Your task to perform on an android device: Search for a new grill on Home Depot Image 0: 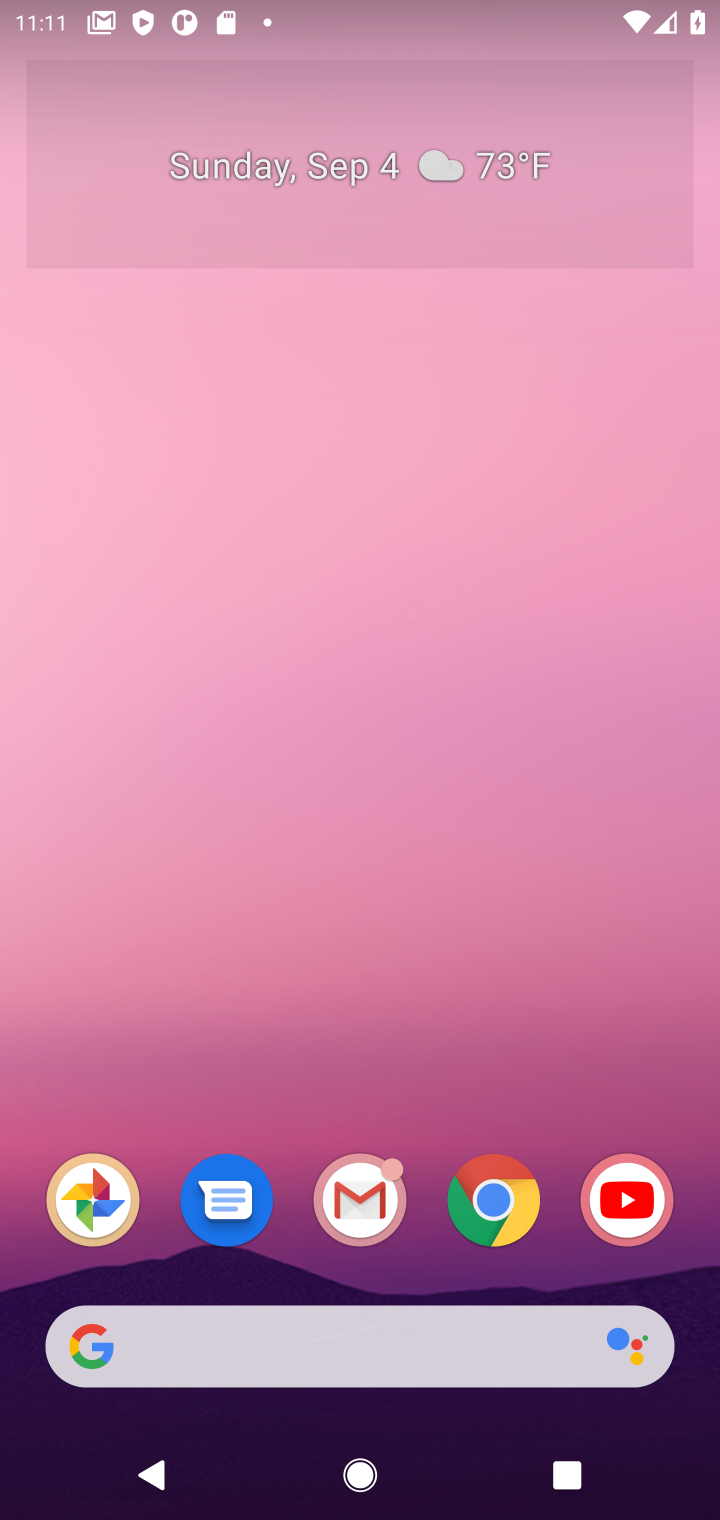
Step 0: click (515, 1214)
Your task to perform on an android device: Search for a new grill on Home Depot Image 1: 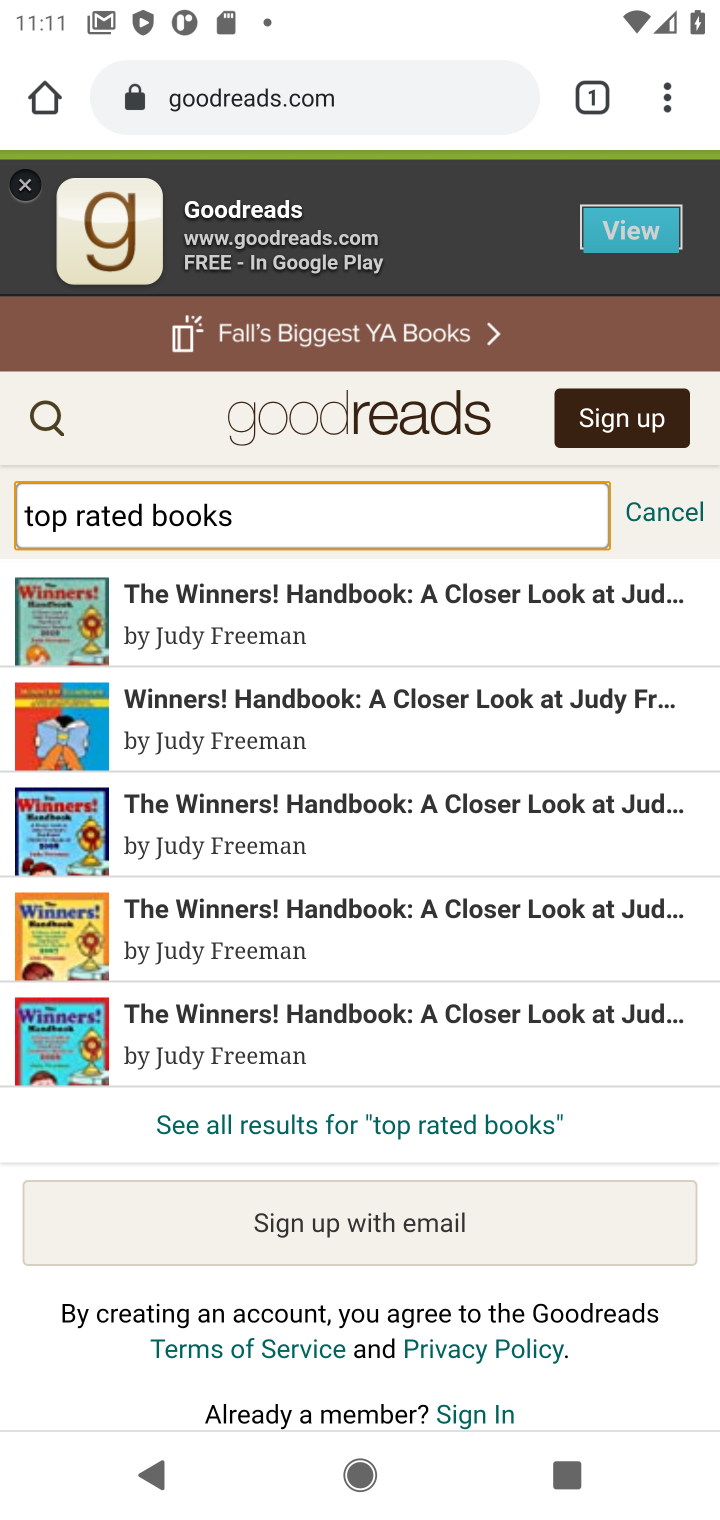
Step 1: click (394, 67)
Your task to perform on an android device: Search for a new grill on Home Depot Image 2: 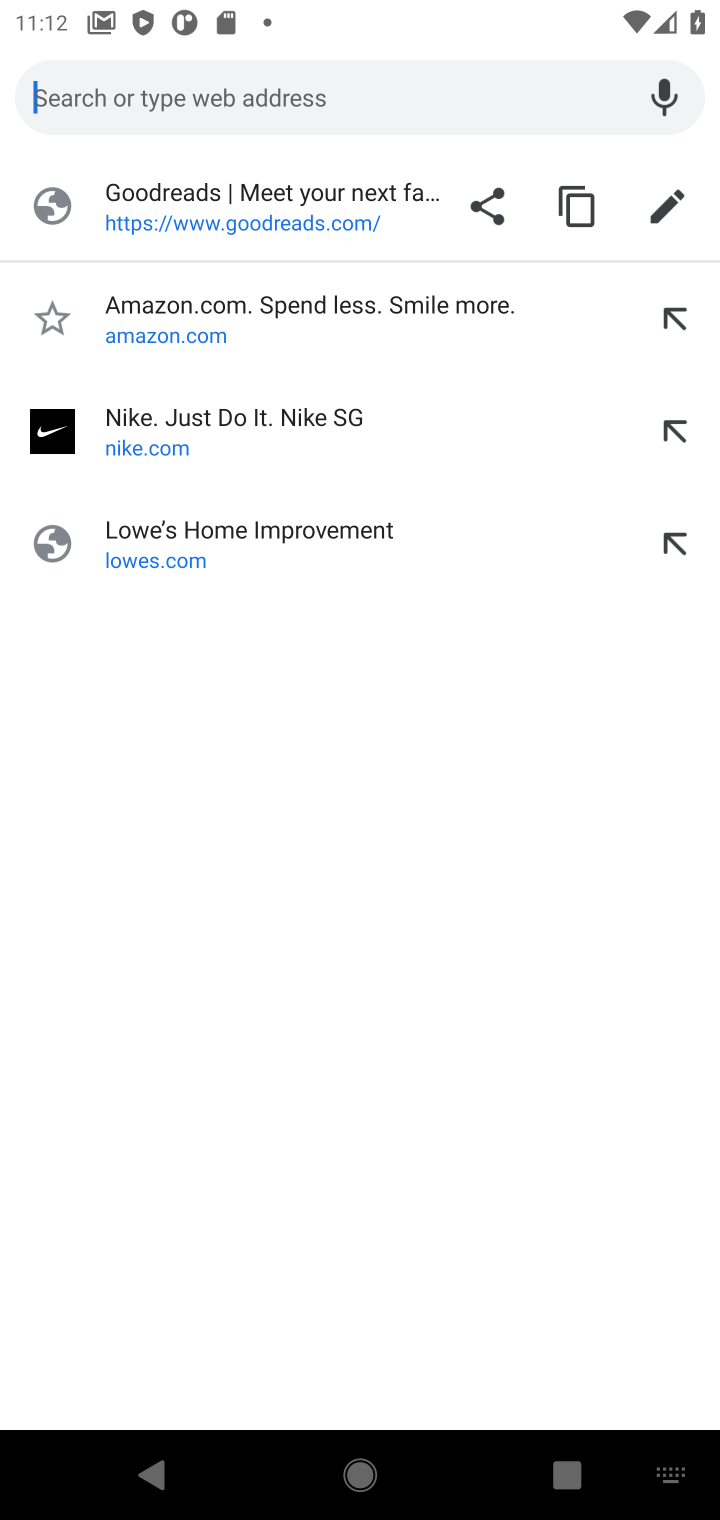
Step 2: type "home depot"
Your task to perform on an android device: Search for a new grill on Home Depot Image 3: 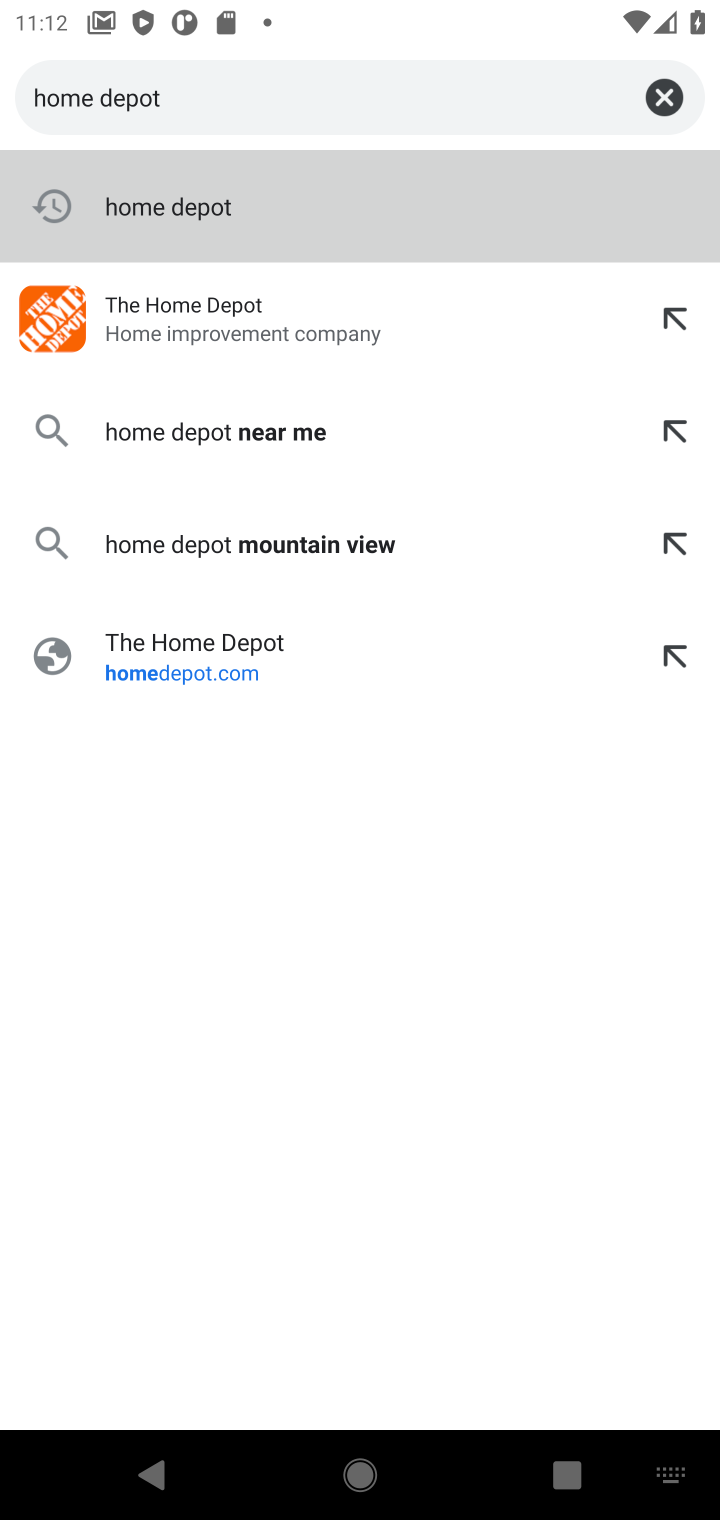
Step 3: click (59, 325)
Your task to perform on an android device: Search for a new grill on Home Depot Image 4: 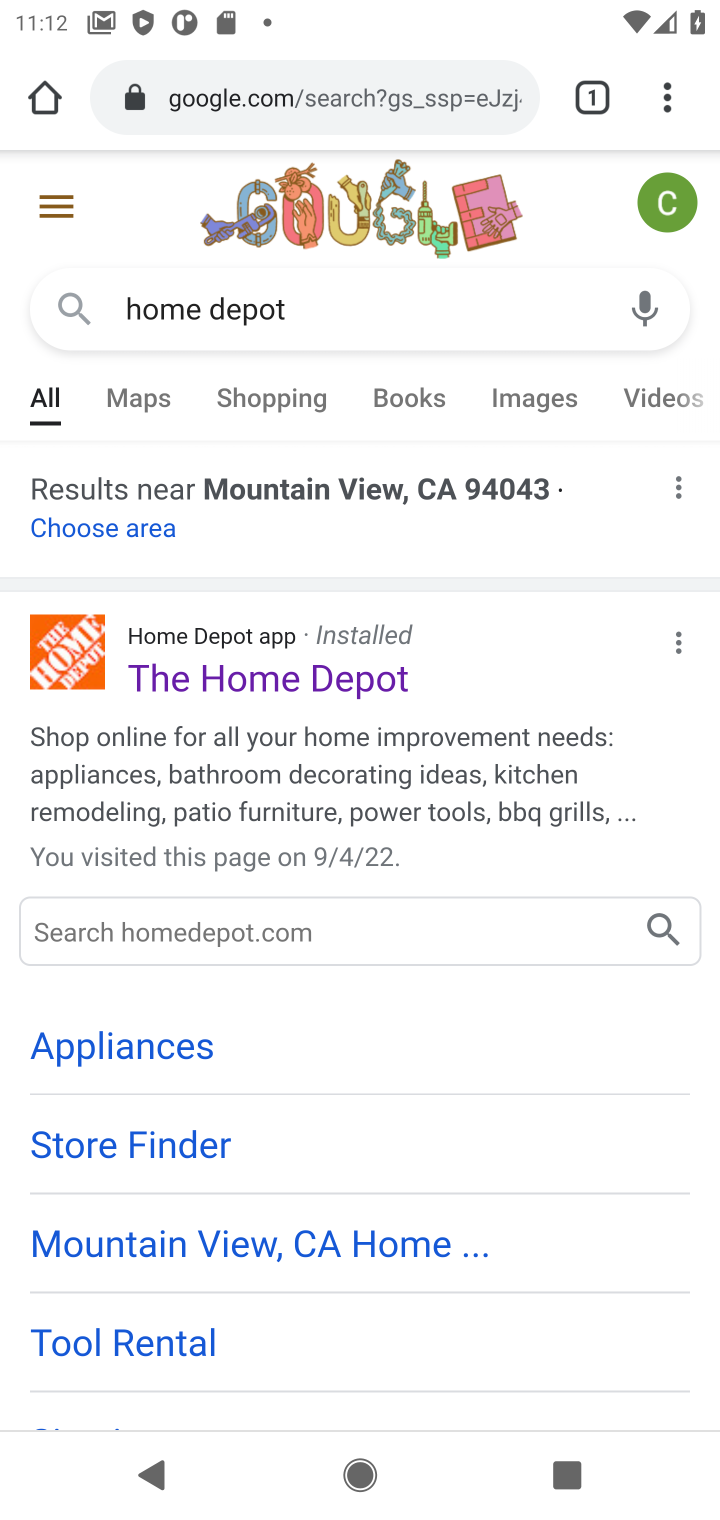
Step 4: click (329, 677)
Your task to perform on an android device: Search for a new grill on Home Depot Image 5: 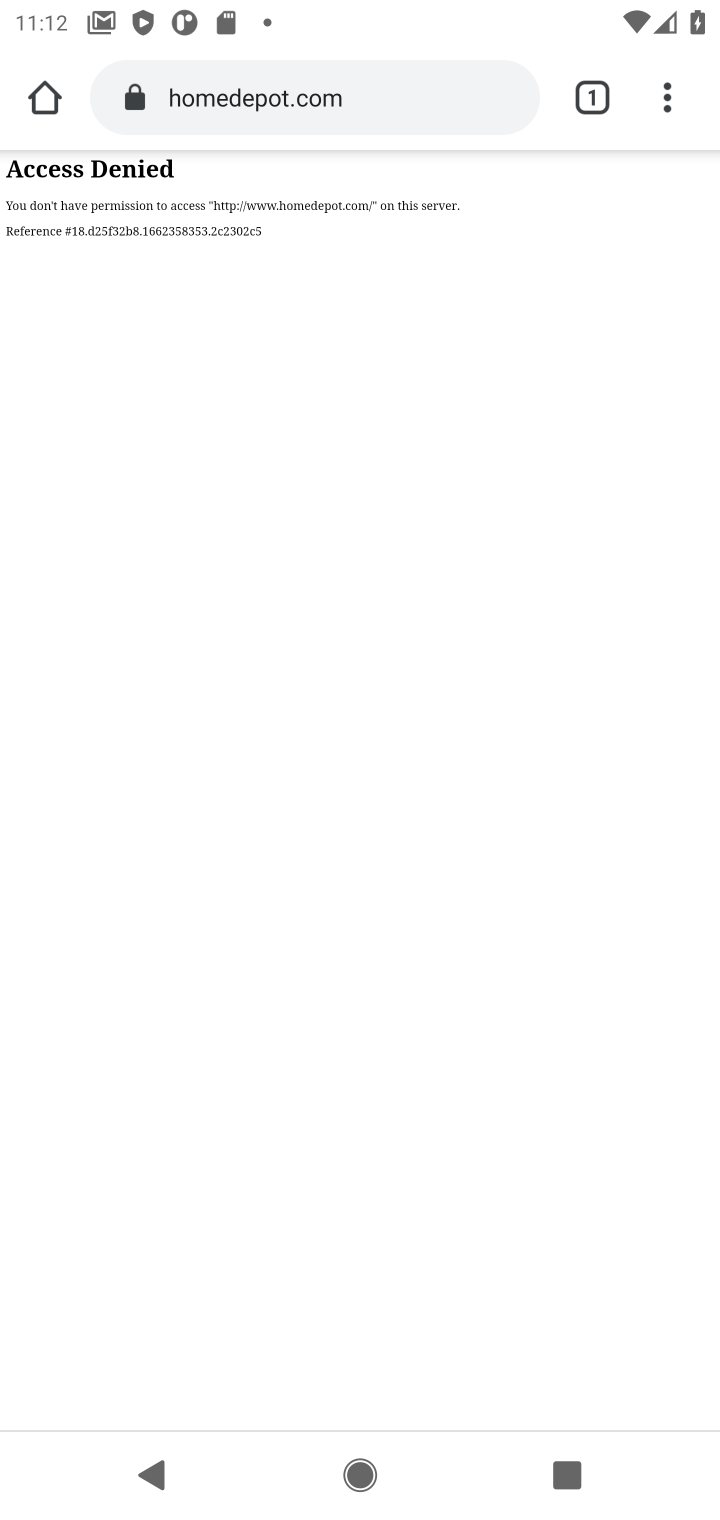
Step 5: task complete